Your task to perform on an android device: Search for asus zenbook on costco, select the first entry, and add it to the cart. Image 0: 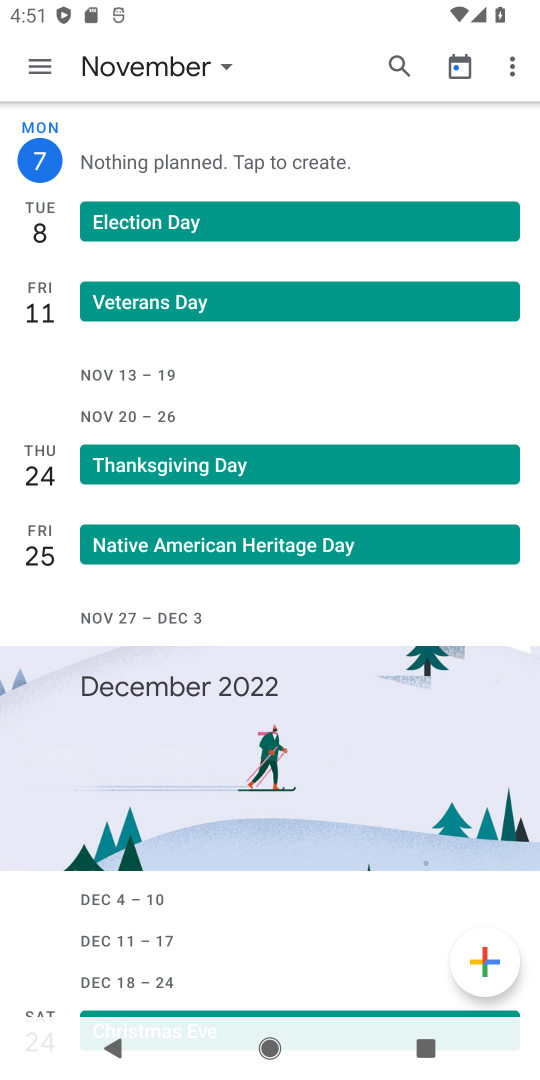
Step 0: press home button
Your task to perform on an android device: Search for asus zenbook on costco, select the first entry, and add it to the cart. Image 1: 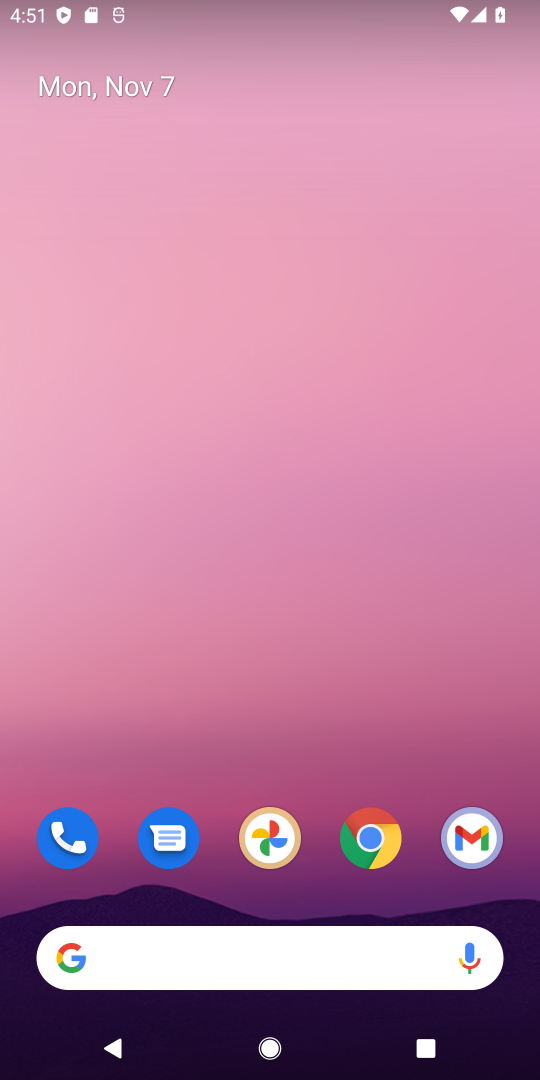
Step 1: click (354, 852)
Your task to perform on an android device: Search for asus zenbook on costco, select the first entry, and add it to the cart. Image 2: 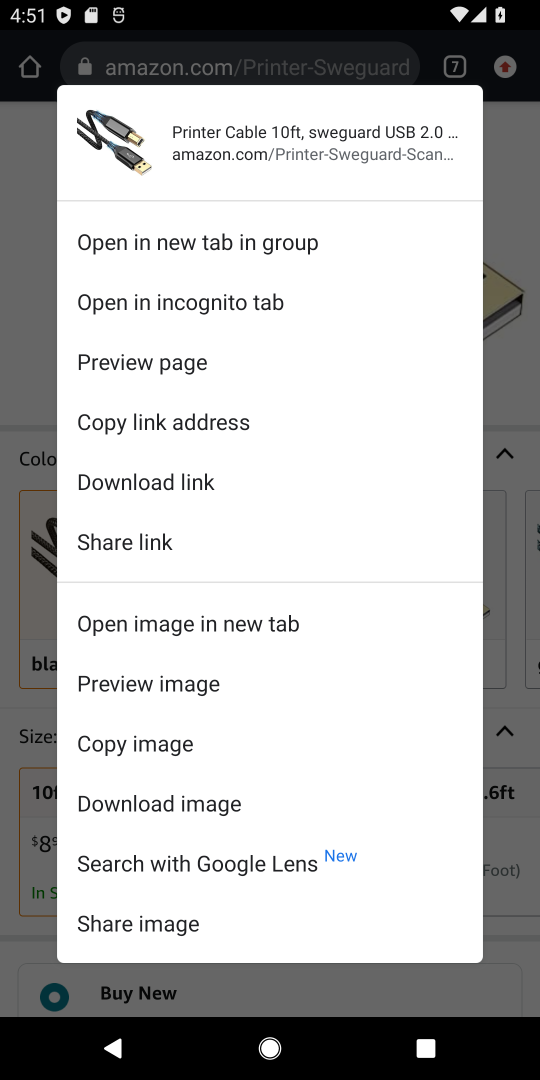
Step 2: click (507, 693)
Your task to perform on an android device: Search for asus zenbook on costco, select the first entry, and add it to the cart. Image 3: 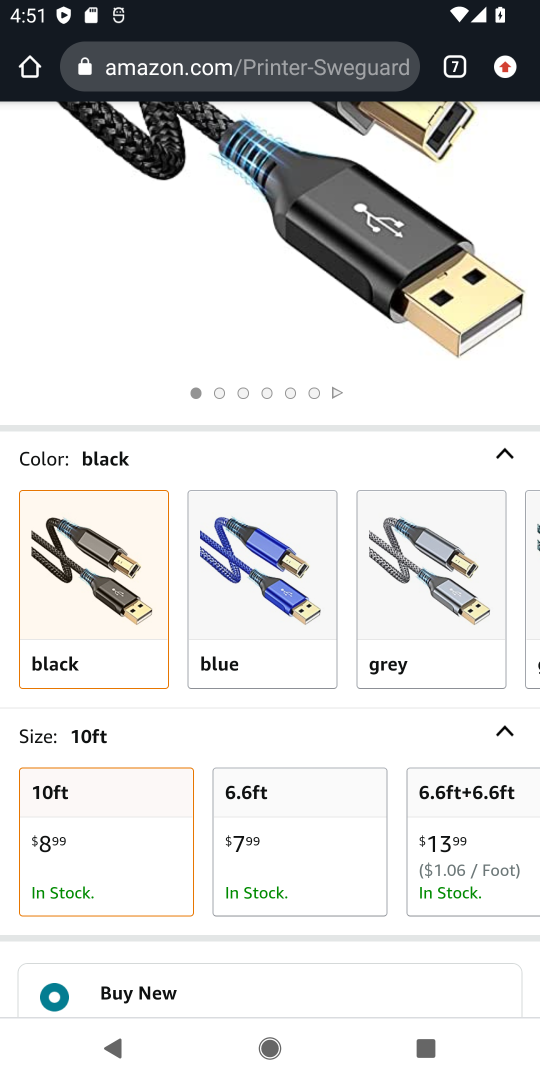
Step 3: click (459, 62)
Your task to perform on an android device: Search for asus zenbook on costco, select the first entry, and add it to the cart. Image 4: 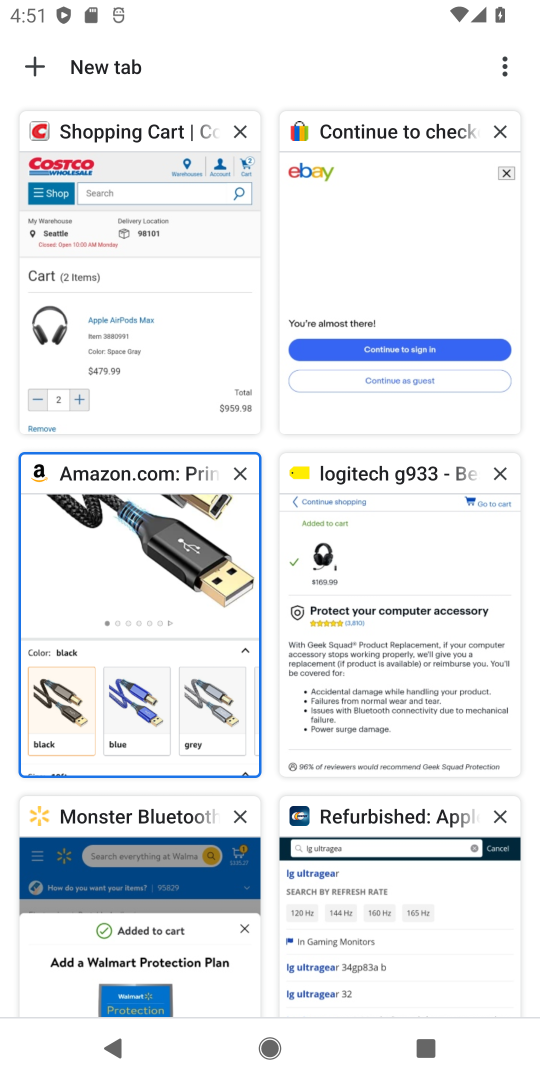
Step 4: click (170, 329)
Your task to perform on an android device: Search for asus zenbook on costco, select the first entry, and add it to the cart. Image 5: 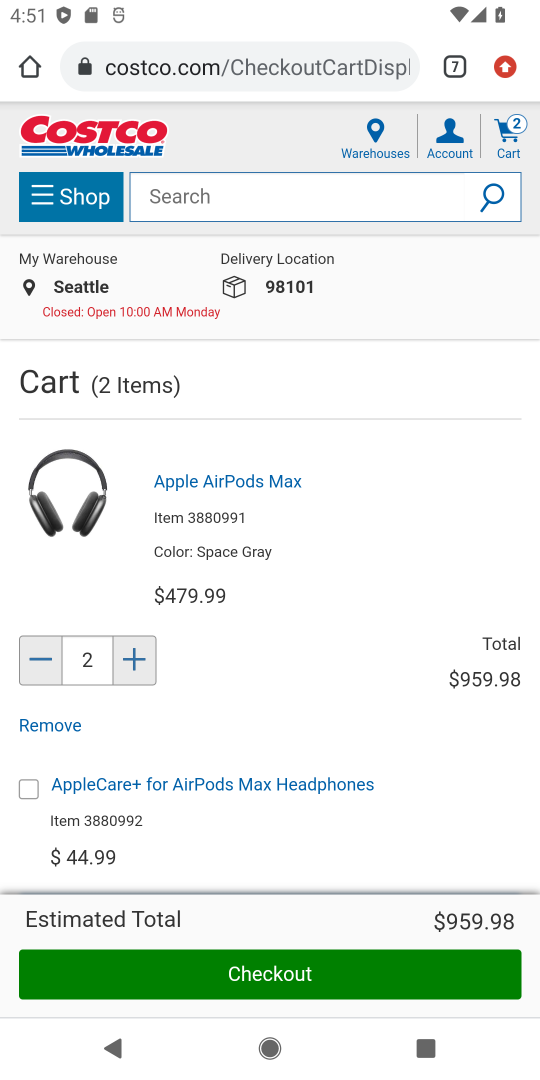
Step 5: click (220, 191)
Your task to perform on an android device: Search for asus zenbook on costco, select the first entry, and add it to the cart. Image 6: 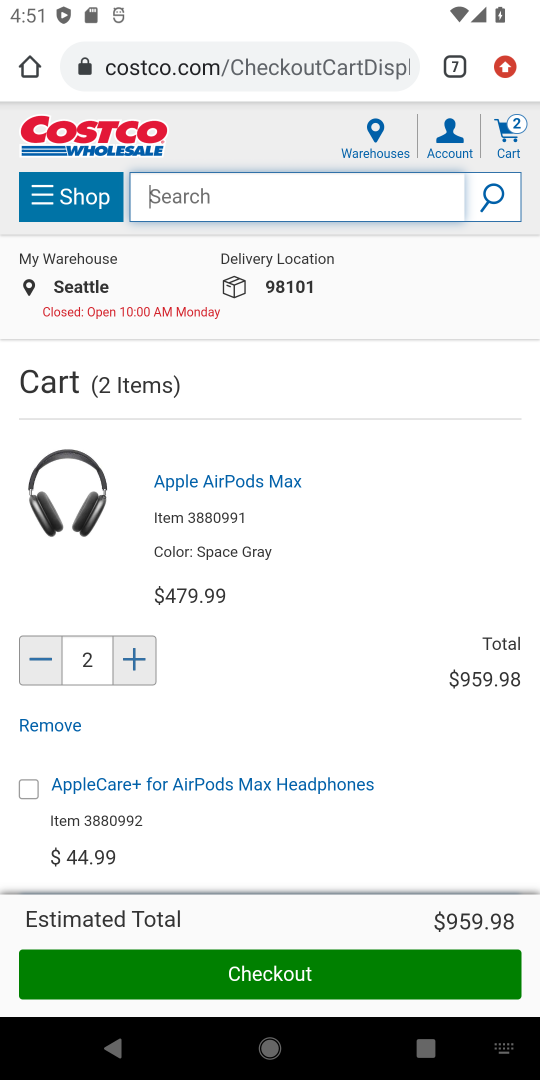
Step 6: type "asus zenbook"
Your task to perform on an android device: Search for asus zenbook on costco, select the first entry, and add it to the cart. Image 7: 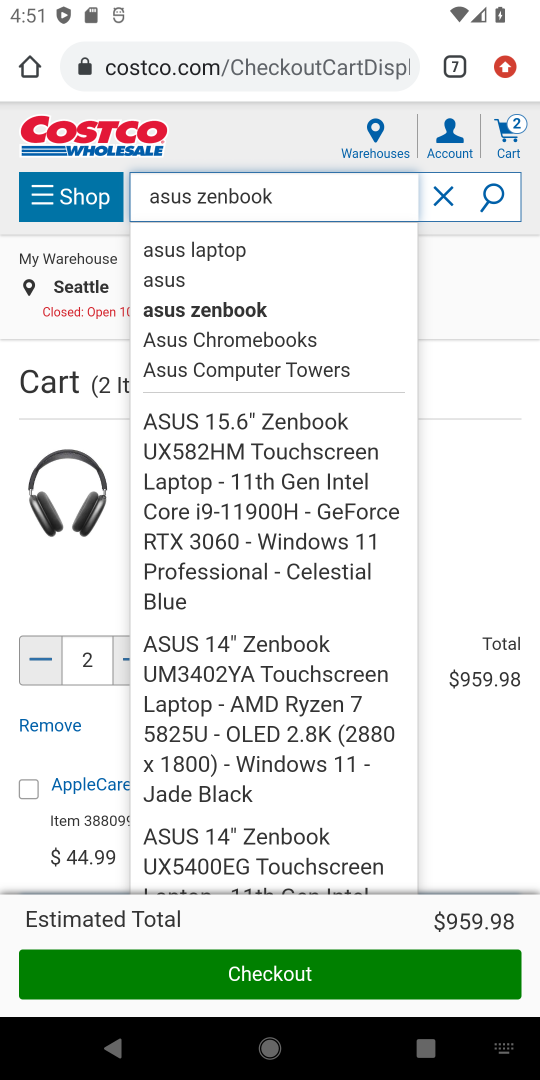
Step 7: click (178, 304)
Your task to perform on an android device: Search for asus zenbook on costco, select the first entry, and add it to the cart. Image 8: 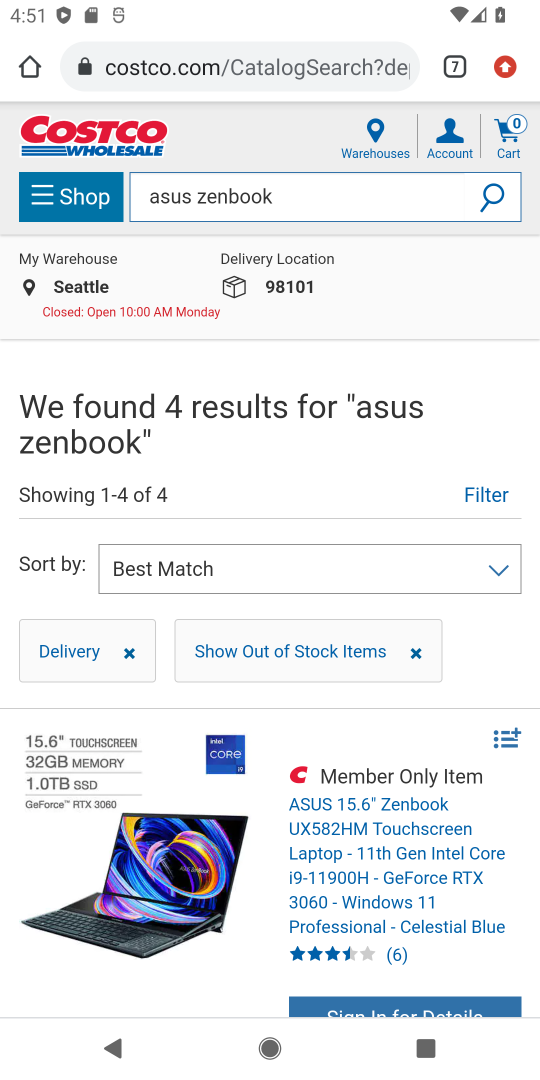
Step 8: click (392, 935)
Your task to perform on an android device: Search for asus zenbook on costco, select the first entry, and add it to the cart. Image 9: 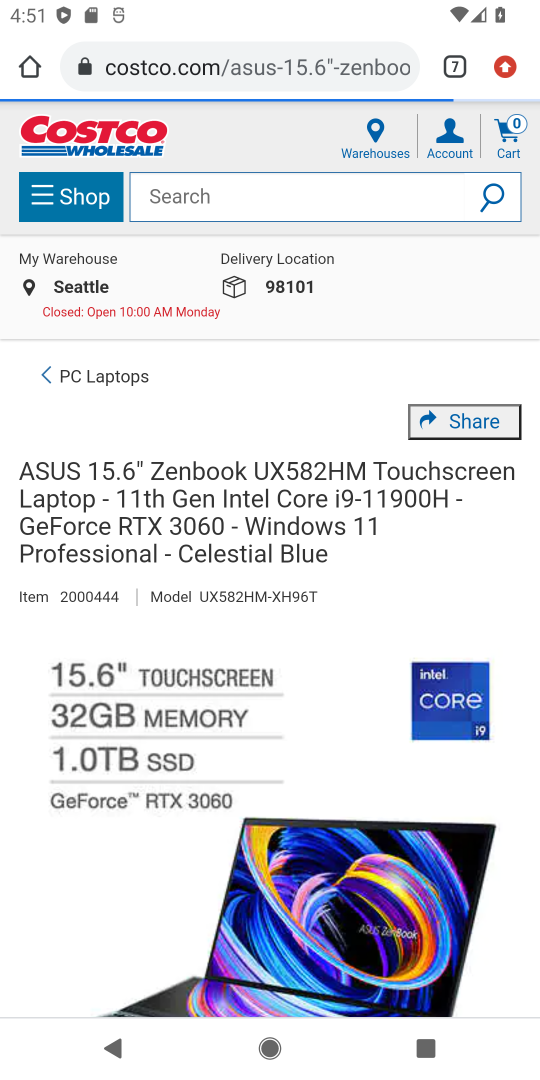
Step 9: drag from (145, 934) to (286, 309)
Your task to perform on an android device: Search for asus zenbook on costco, select the first entry, and add it to the cart. Image 10: 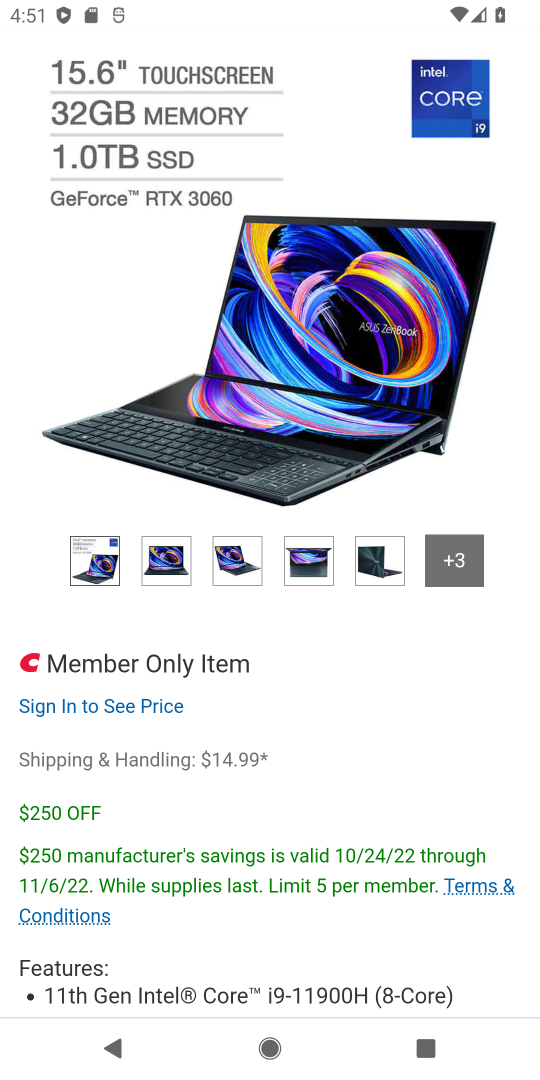
Step 10: drag from (135, 854) to (241, 408)
Your task to perform on an android device: Search for asus zenbook on costco, select the first entry, and add it to the cart. Image 11: 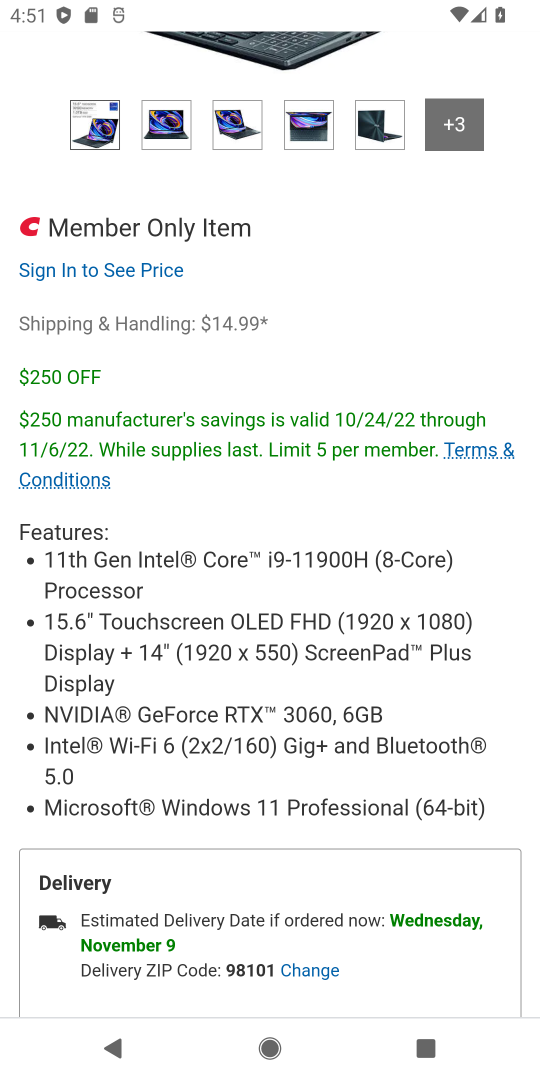
Step 11: drag from (236, 743) to (327, 24)
Your task to perform on an android device: Search for asus zenbook on costco, select the first entry, and add it to the cart. Image 12: 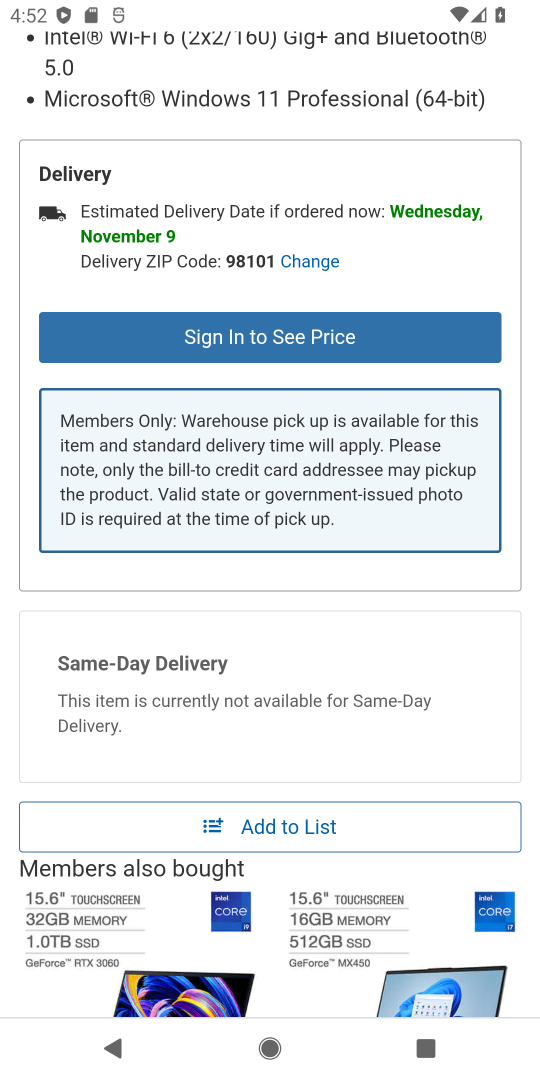
Step 12: click (291, 827)
Your task to perform on an android device: Search for asus zenbook on costco, select the first entry, and add it to the cart. Image 13: 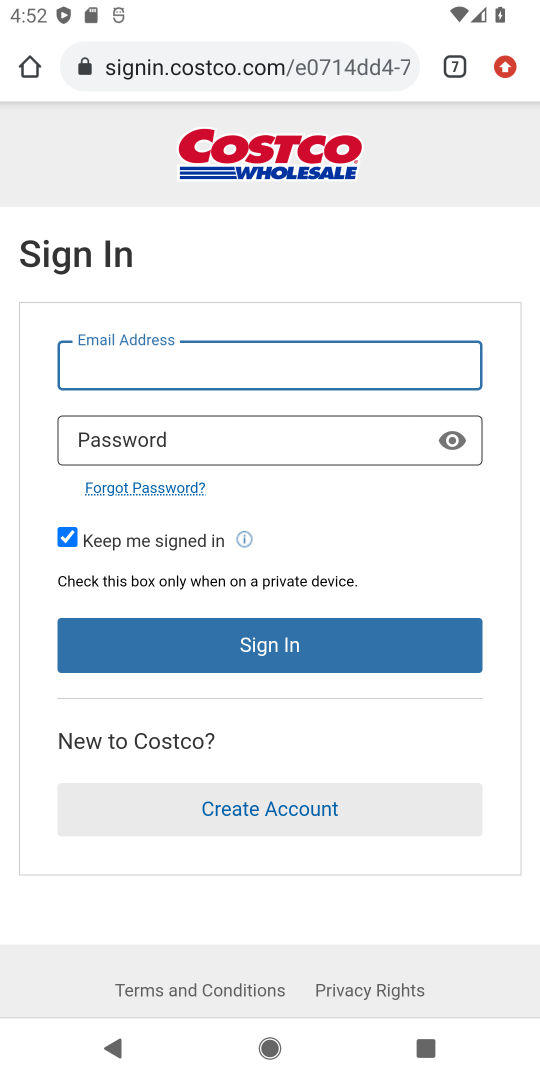
Step 13: task complete